Your task to perform on an android device: Play the last video I watched on Youtube Image 0: 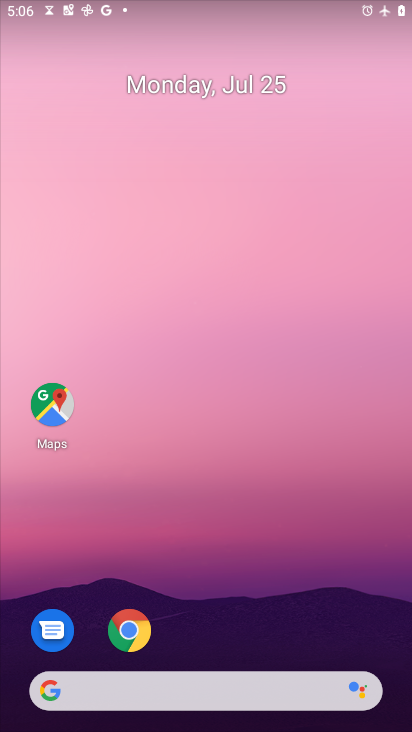
Step 0: drag from (182, 692) to (241, 20)
Your task to perform on an android device: Play the last video I watched on Youtube Image 1: 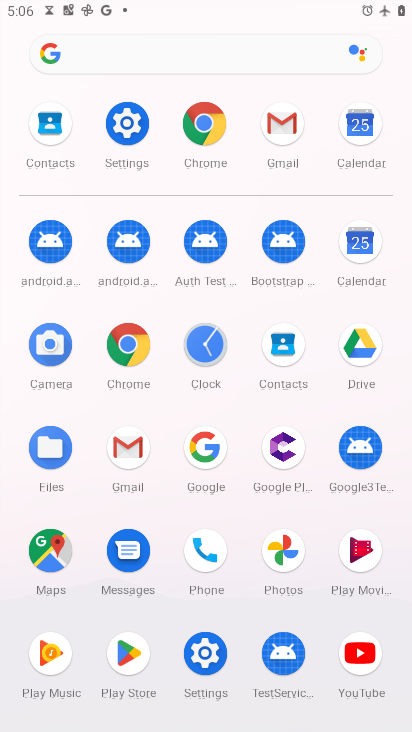
Step 1: click (358, 651)
Your task to perform on an android device: Play the last video I watched on Youtube Image 2: 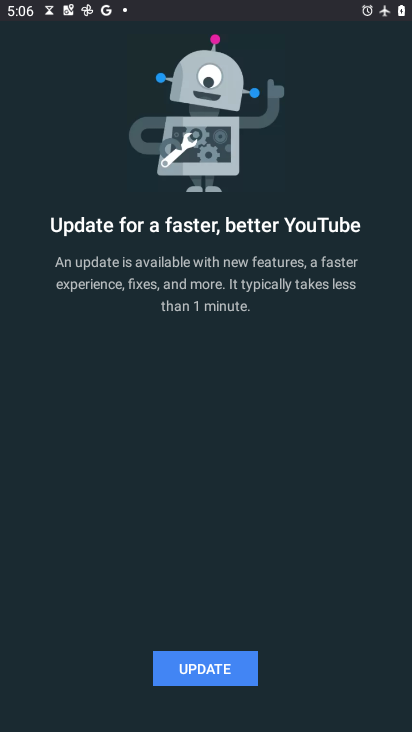
Step 2: click (212, 667)
Your task to perform on an android device: Play the last video I watched on Youtube Image 3: 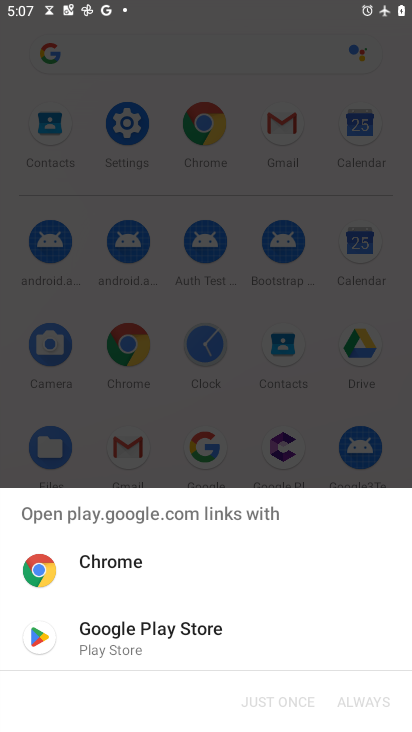
Step 3: click (171, 636)
Your task to perform on an android device: Play the last video I watched on Youtube Image 4: 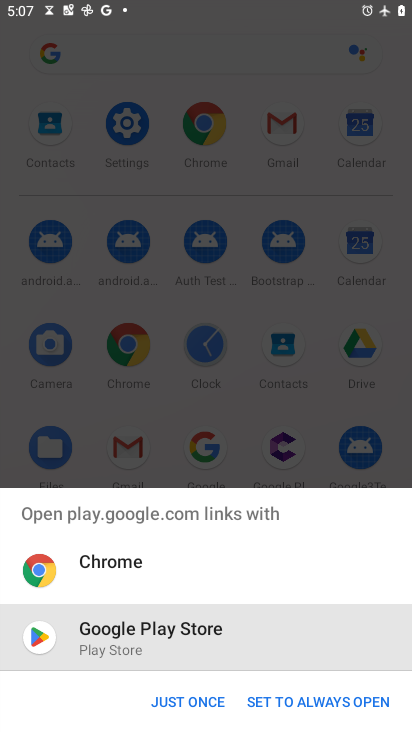
Step 4: click (182, 699)
Your task to perform on an android device: Play the last video I watched on Youtube Image 5: 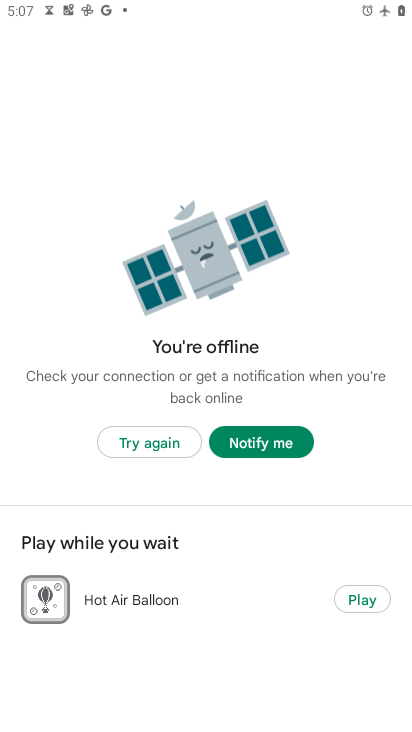
Step 5: click (134, 442)
Your task to perform on an android device: Play the last video I watched on Youtube Image 6: 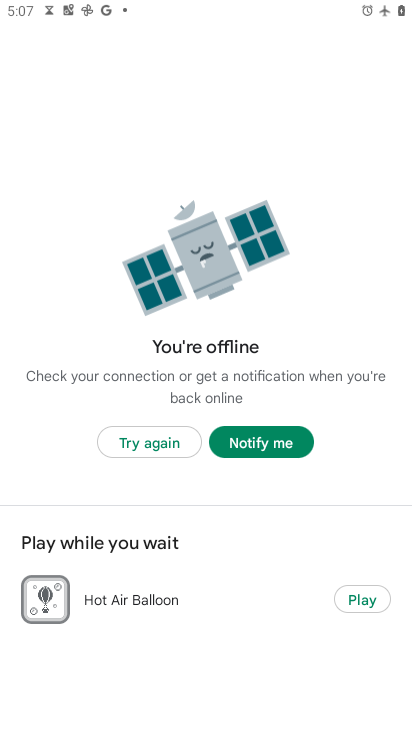
Step 6: click (153, 438)
Your task to perform on an android device: Play the last video I watched on Youtube Image 7: 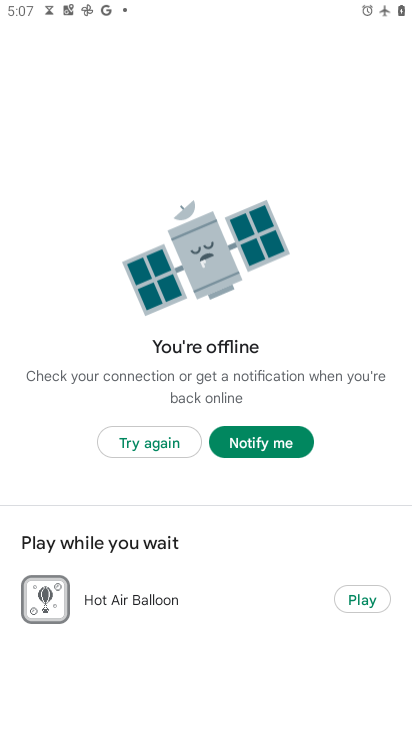
Step 7: click (153, 438)
Your task to perform on an android device: Play the last video I watched on Youtube Image 8: 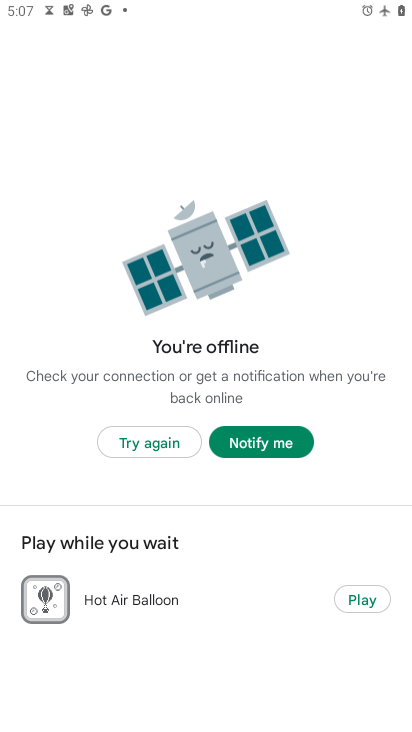
Step 8: click (153, 438)
Your task to perform on an android device: Play the last video I watched on Youtube Image 9: 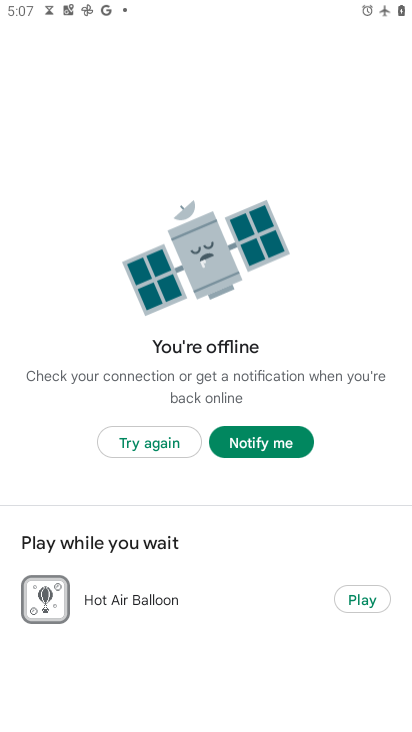
Step 9: click (153, 438)
Your task to perform on an android device: Play the last video I watched on Youtube Image 10: 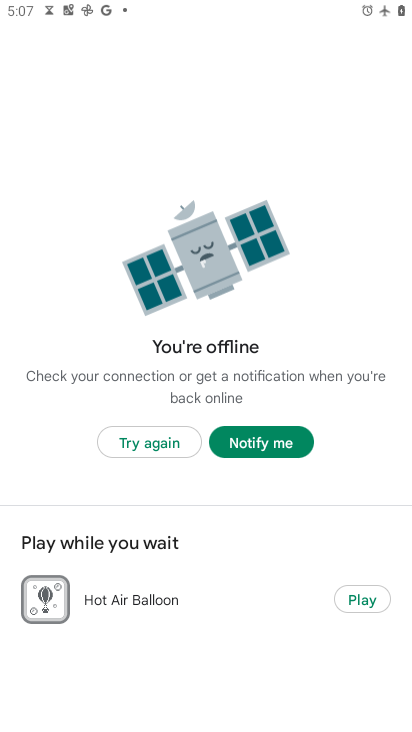
Step 10: click (153, 438)
Your task to perform on an android device: Play the last video I watched on Youtube Image 11: 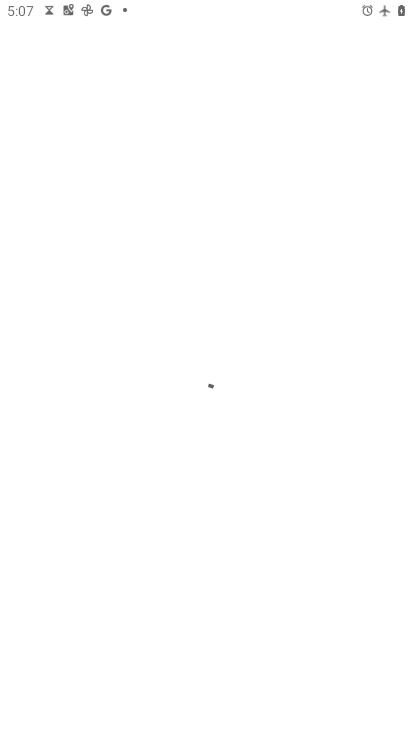
Step 11: click (153, 438)
Your task to perform on an android device: Play the last video I watched on Youtube Image 12: 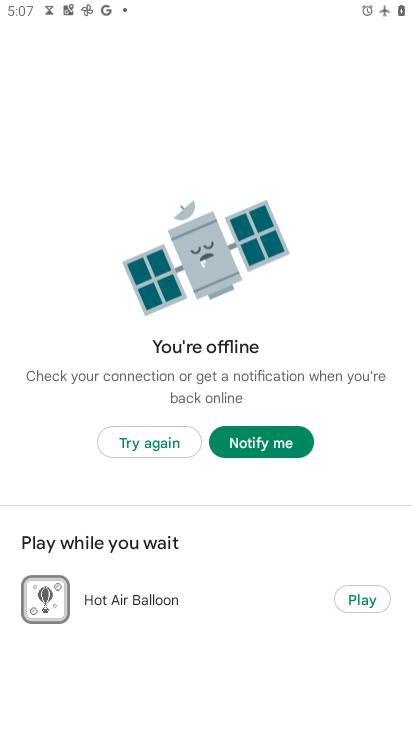
Step 12: click (153, 438)
Your task to perform on an android device: Play the last video I watched on Youtube Image 13: 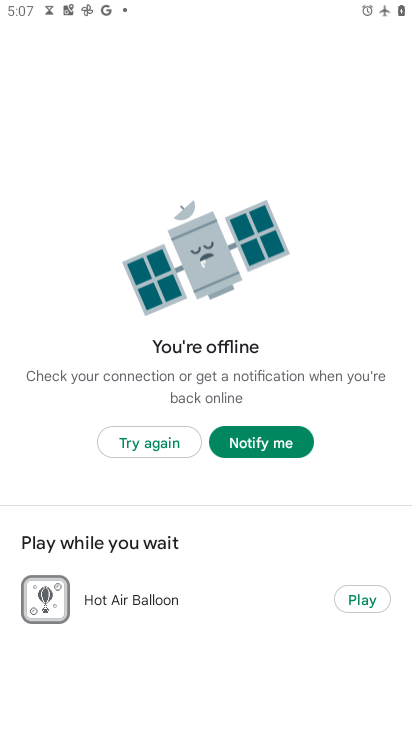
Step 13: task complete